Your task to perform on an android device: Open my contact list Image 0: 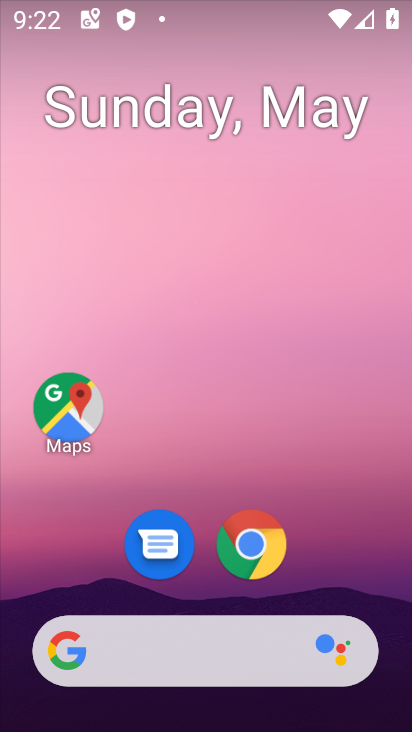
Step 0: drag from (327, 565) to (318, 27)
Your task to perform on an android device: Open my contact list Image 1: 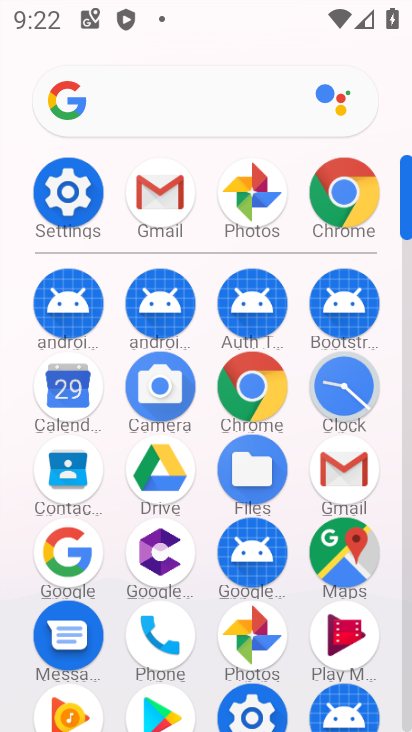
Step 1: click (71, 475)
Your task to perform on an android device: Open my contact list Image 2: 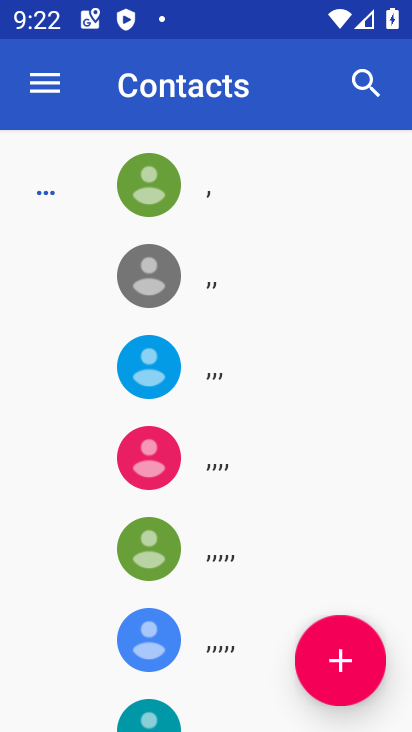
Step 2: task complete